Your task to perform on an android device: check battery use Image 0: 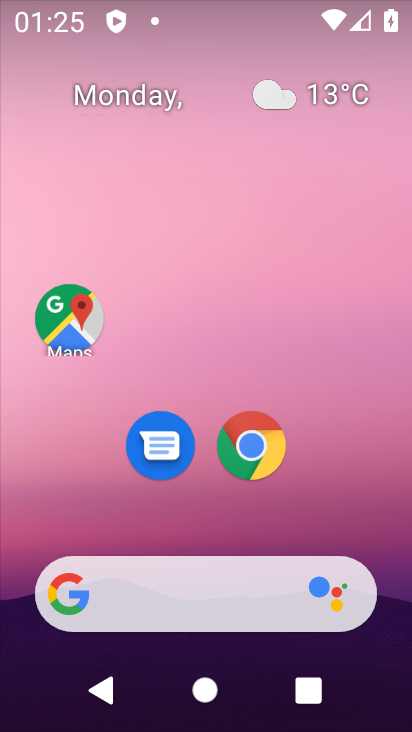
Step 0: drag from (302, 515) to (181, 0)
Your task to perform on an android device: check battery use Image 1: 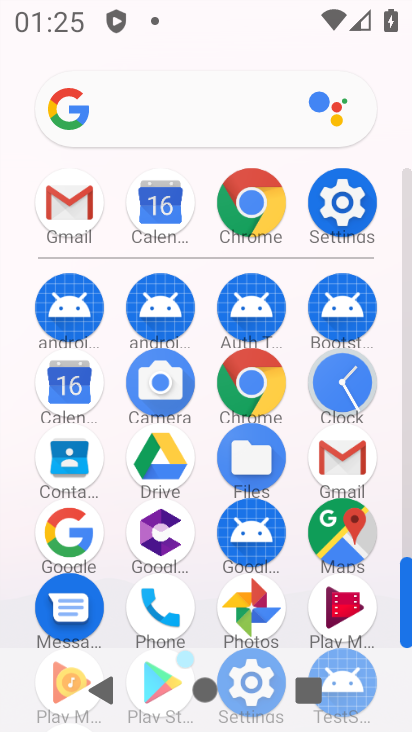
Step 1: click (346, 193)
Your task to perform on an android device: check battery use Image 2: 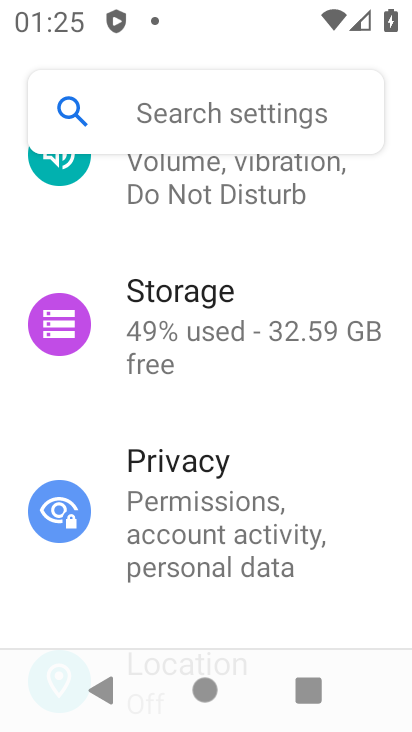
Step 2: drag from (140, 590) to (135, 170)
Your task to perform on an android device: check battery use Image 3: 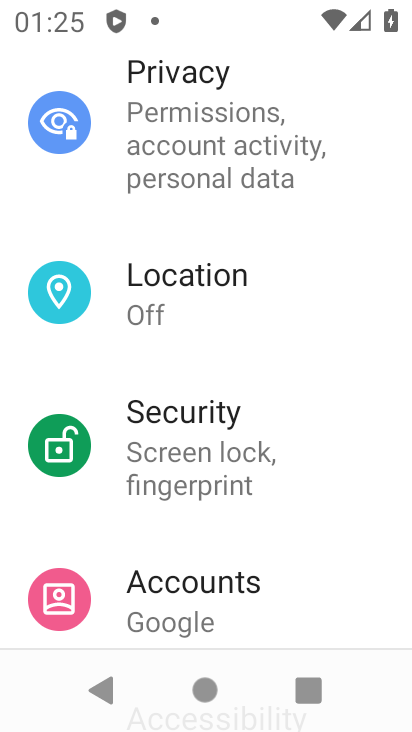
Step 3: drag from (225, 595) to (240, 290)
Your task to perform on an android device: check battery use Image 4: 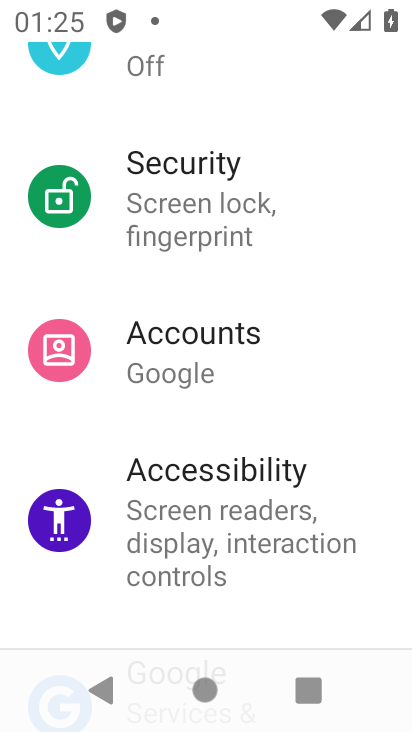
Step 4: drag from (241, 552) to (237, 197)
Your task to perform on an android device: check battery use Image 5: 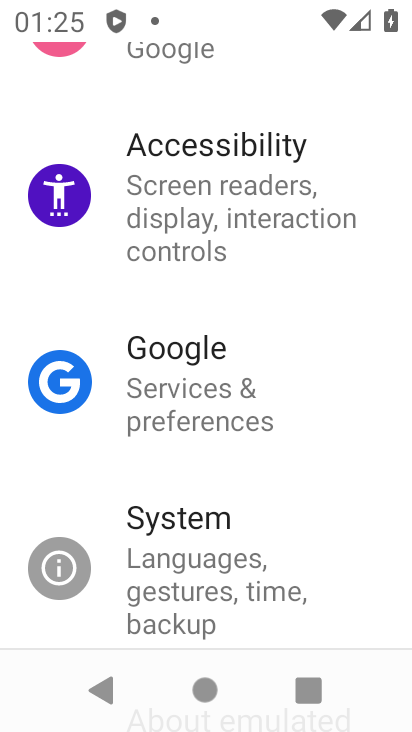
Step 5: drag from (216, 209) to (202, 609)
Your task to perform on an android device: check battery use Image 6: 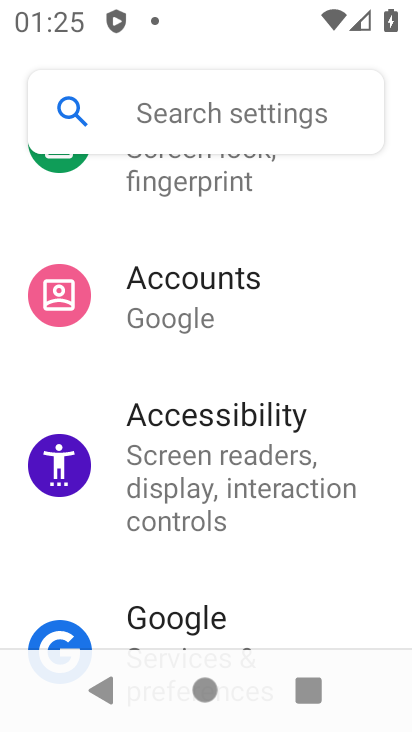
Step 6: drag from (205, 220) to (188, 563)
Your task to perform on an android device: check battery use Image 7: 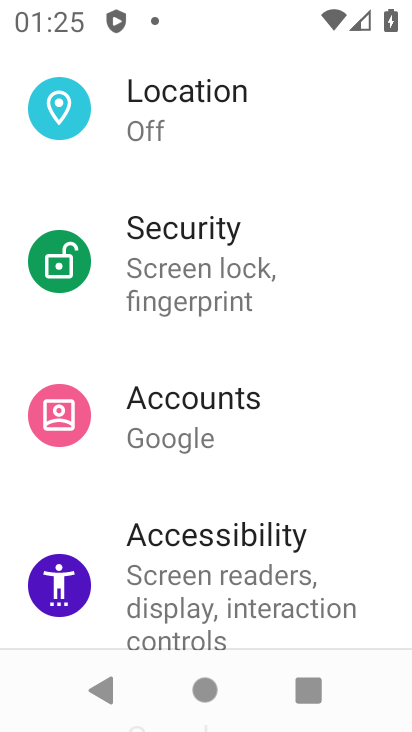
Step 7: drag from (187, 352) to (335, 702)
Your task to perform on an android device: check battery use Image 8: 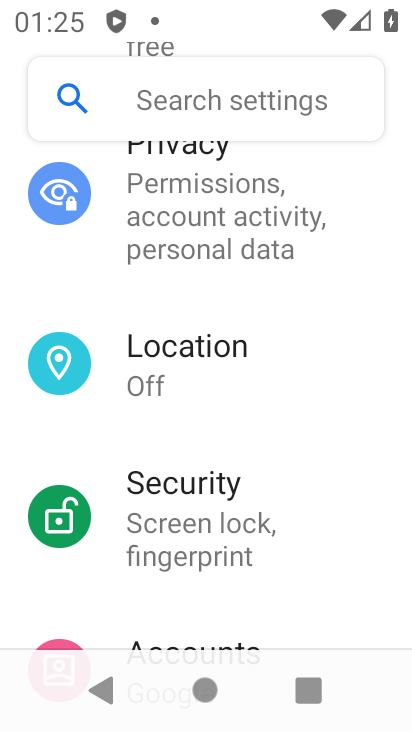
Step 8: drag from (283, 331) to (285, 720)
Your task to perform on an android device: check battery use Image 9: 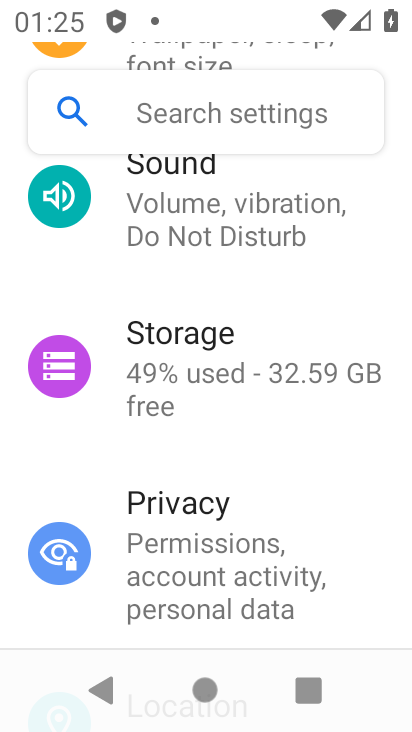
Step 9: click (167, 642)
Your task to perform on an android device: check battery use Image 10: 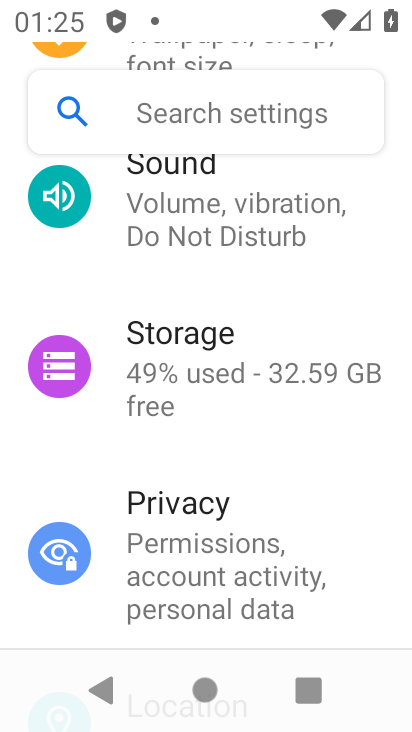
Step 10: drag from (255, 345) to (231, 716)
Your task to perform on an android device: check battery use Image 11: 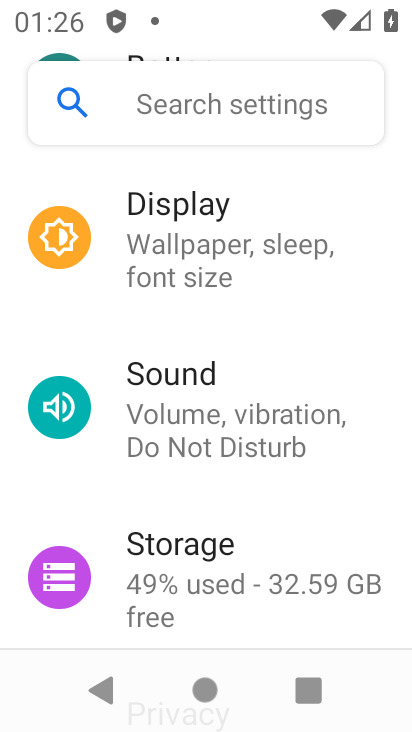
Step 11: drag from (236, 398) to (244, 719)
Your task to perform on an android device: check battery use Image 12: 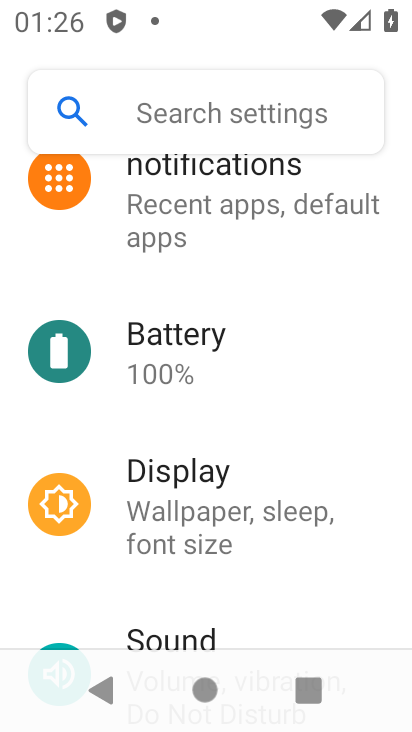
Step 12: click (130, 350)
Your task to perform on an android device: check battery use Image 13: 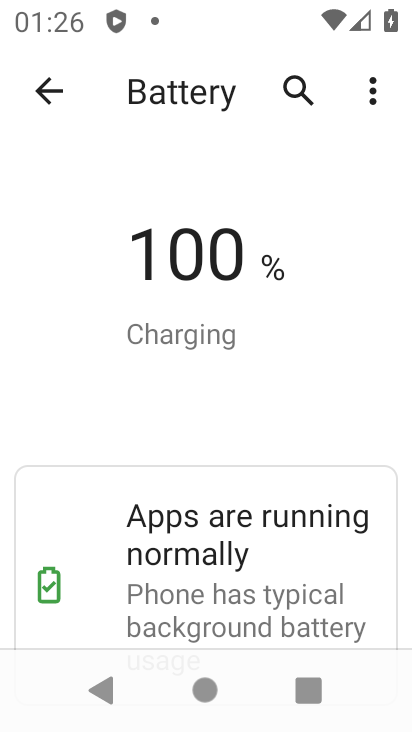
Step 13: task complete